Your task to perform on an android device: Open battery settings Image 0: 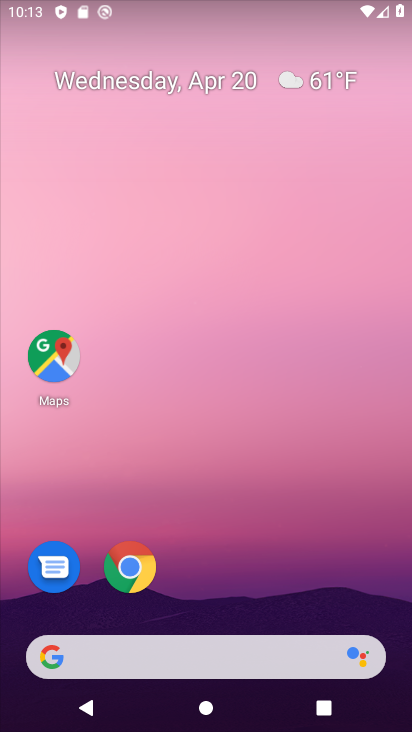
Step 0: drag from (226, 509) to (297, 44)
Your task to perform on an android device: Open battery settings Image 1: 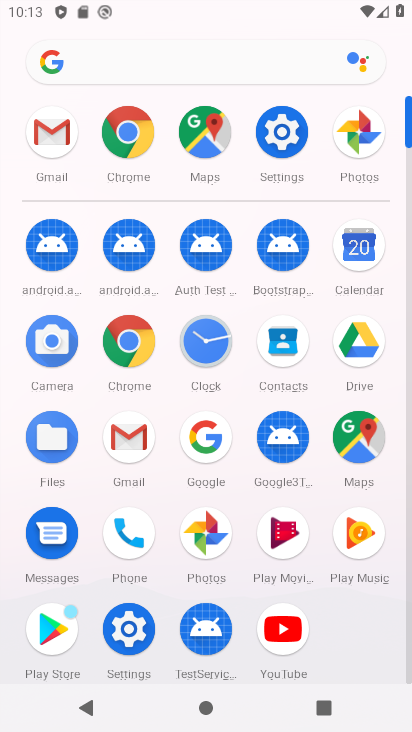
Step 1: click (280, 134)
Your task to perform on an android device: Open battery settings Image 2: 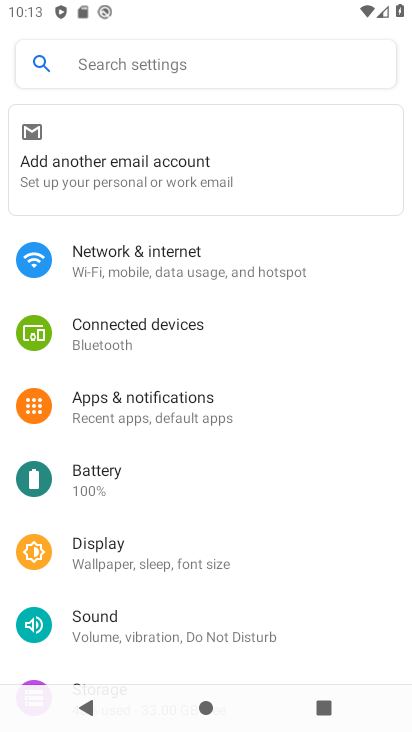
Step 2: click (109, 485)
Your task to perform on an android device: Open battery settings Image 3: 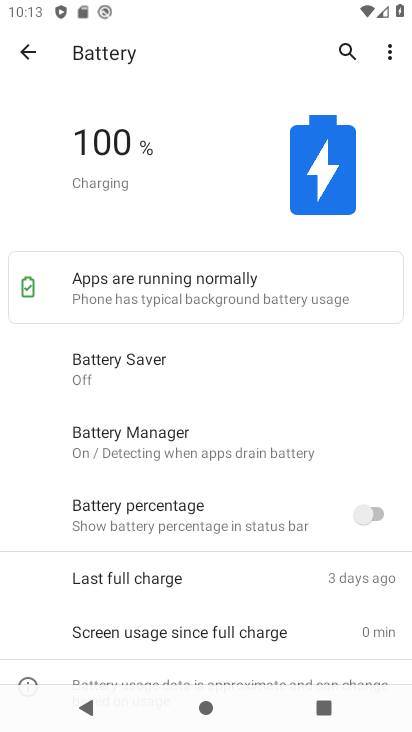
Step 3: task complete